Your task to perform on an android device: toggle notifications settings in the gmail app Image 0: 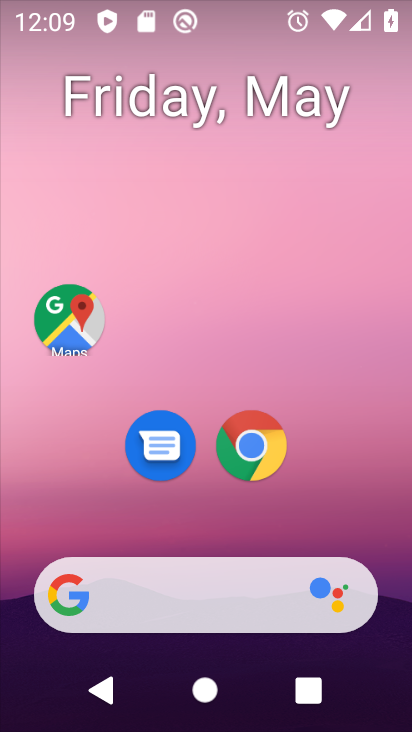
Step 0: drag from (374, 382) to (400, 3)
Your task to perform on an android device: toggle notifications settings in the gmail app Image 1: 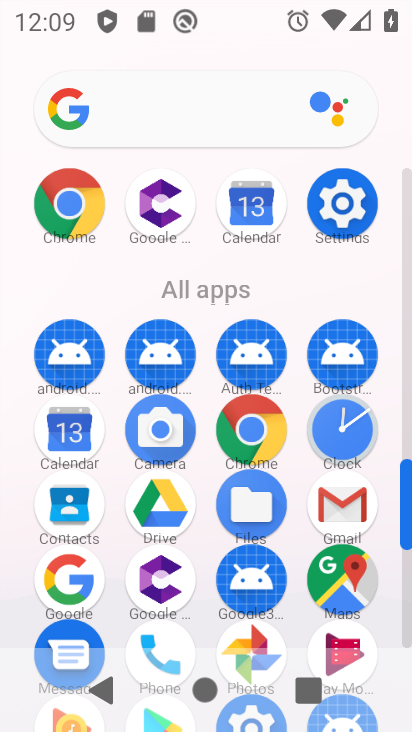
Step 1: click (336, 506)
Your task to perform on an android device: toggle notifications settings in the gmail app Image 2: 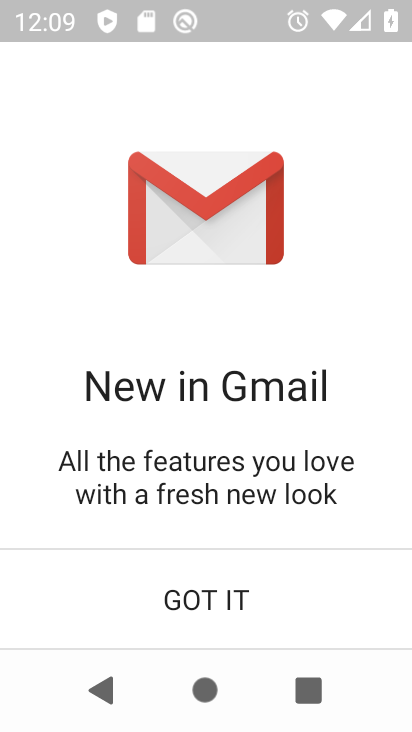
Step 2: click (215, 590)
Your task to perform on an android device: toggle notifications settings in the gmail app Image 3: 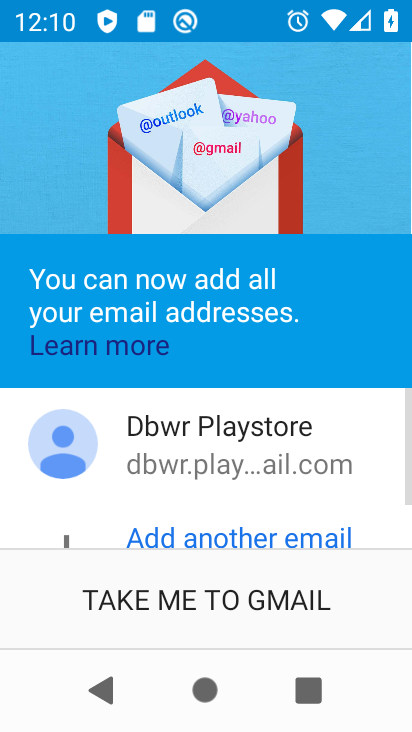
Step 3: click (214, 590)
Your task to perform on an android device: toggle notifications settings in the gmail app Image 4: 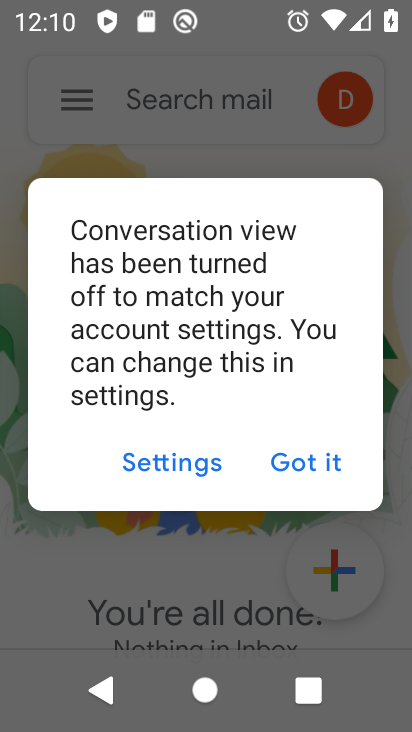
Step 4: click (296, 473)
Your task to perform on an android device: toggle notifications settings in the gmail app Image 5: 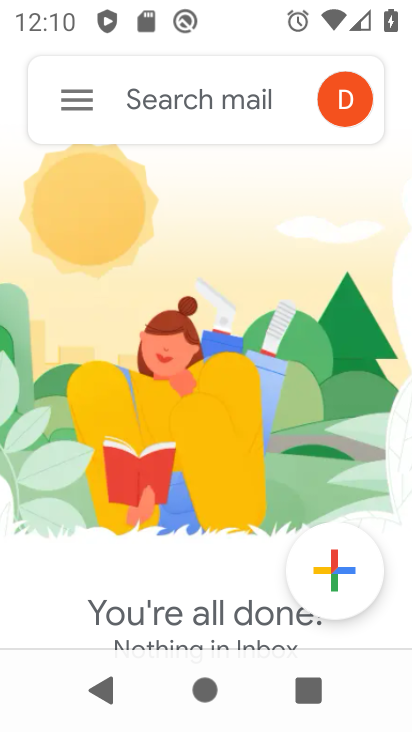
Step 5: click (72, 106)
Your task to perform on an android device: toggle notifications settings in the gmail app Image 6: 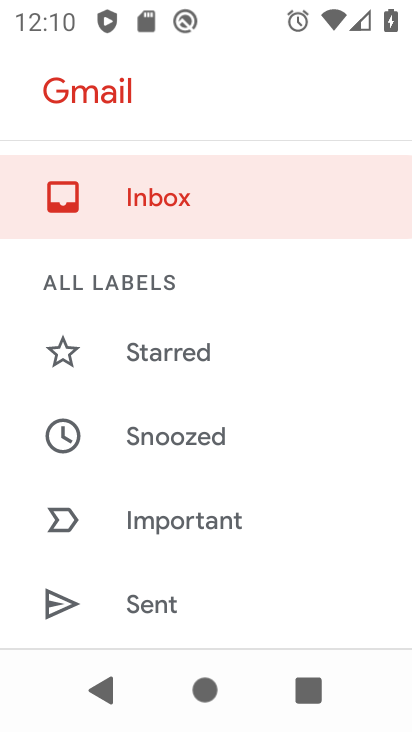
Step 6: drag from (269, 527) to (268, 147)
Your task to perform on an android device: toggle notifications settings in the gmail app Image 7: 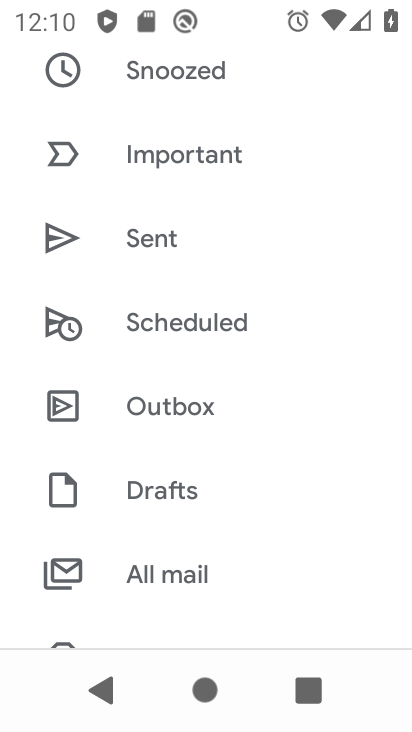
Step 7: drag from (267, 534) to (271, 192)
Your task to perform on an android device: toggle notifications settings in the gmail app Image 8: 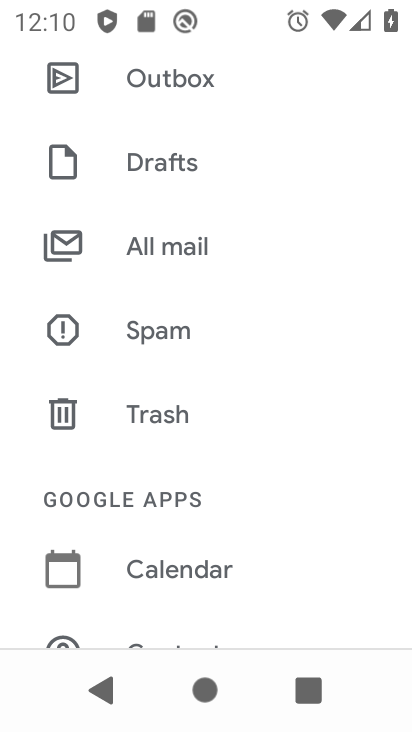
Step 8: drag from (265, 540) to (265, 196)
Your task to perform on an android device: toggle notifications settings in the gmail app Image 9: 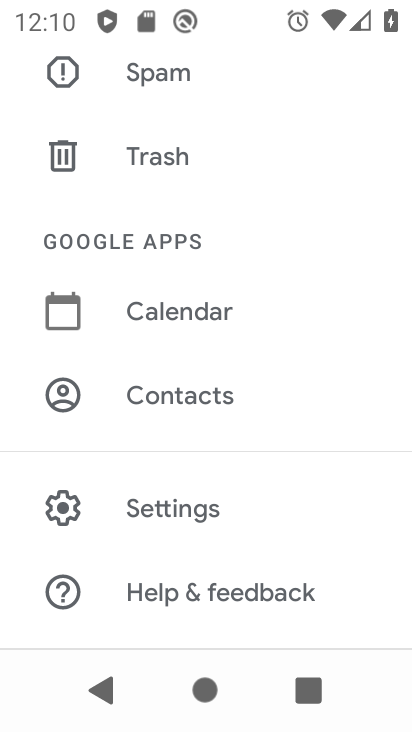
Step 9: click (152, 507)
Your task to perform on an android device: toggle notifications settings in the gmail app Image 10: 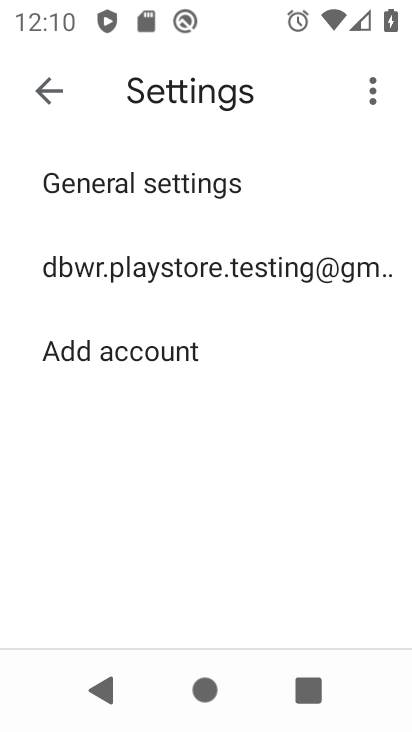
Step 10: click (134, 192)
Your task to perform on an android device: toggle notifications settings in the gmail app Image 11: 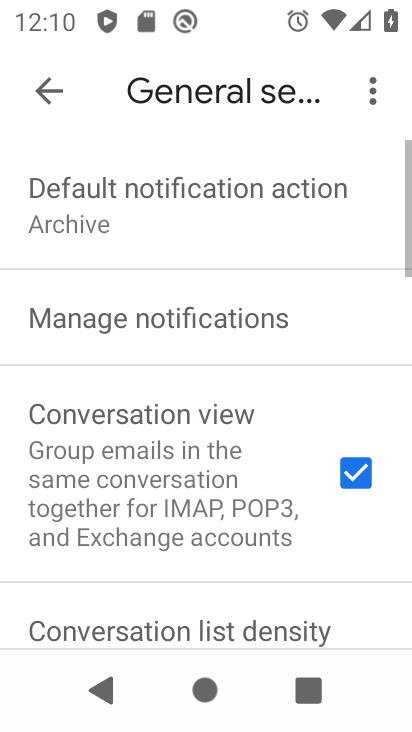
Step 11: click (142, 326)
Your task to perform on an android device: toggle notifications settings in the gmail app Image 12: 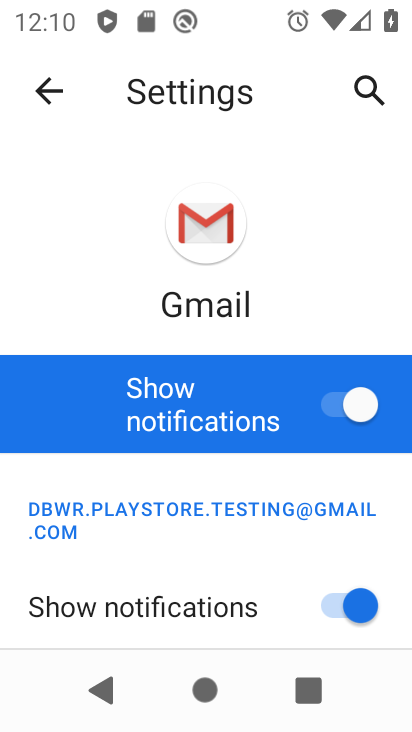
Step 12: click (356, 406)
Your task to perform on an android device: toggle notifications settings in the gmail app Image 13: 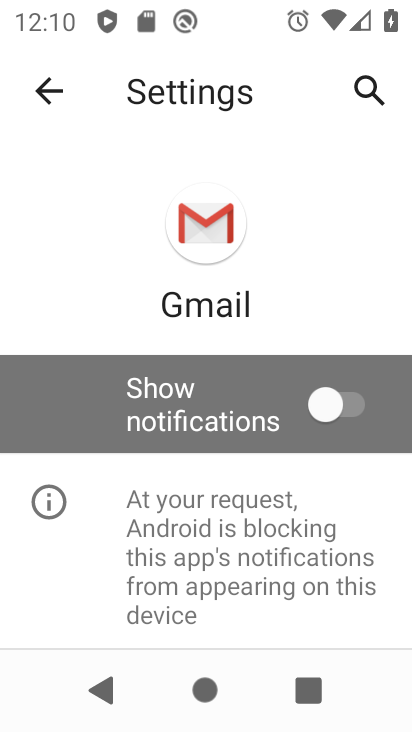
Step 13: task complete